Your task to perform on an android device: make emails show in primary in the gmail app Image 0: 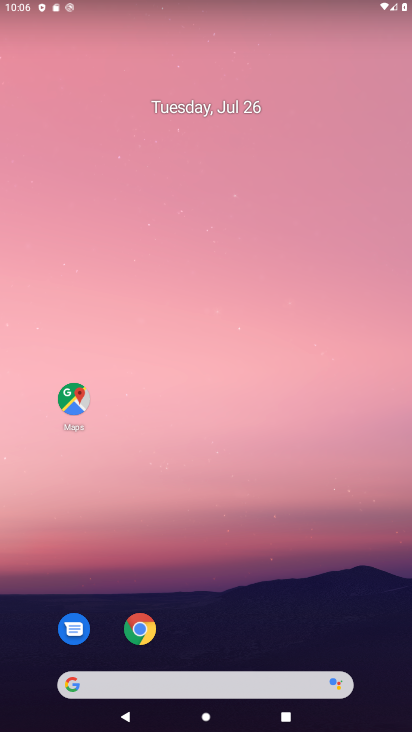
Step 0: drag from (333, 609) to (80, 81)
Your task to perform on an android device: make emails show in primary in the gmail app Image 1: 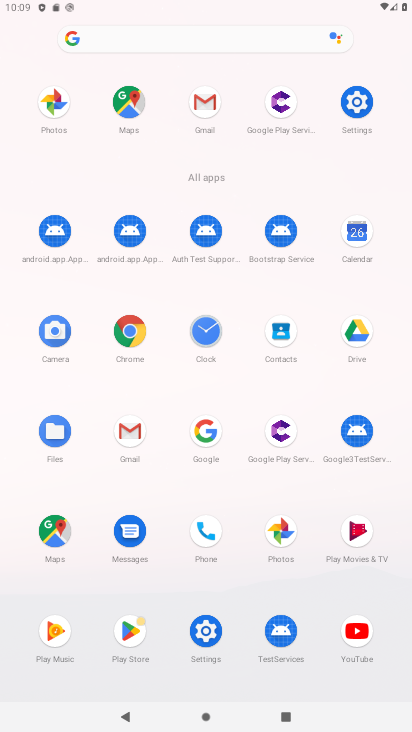
Step 1: click (129, 435)
Your task to perform on an android device: make emails show in primary in the gmail app Image 2: 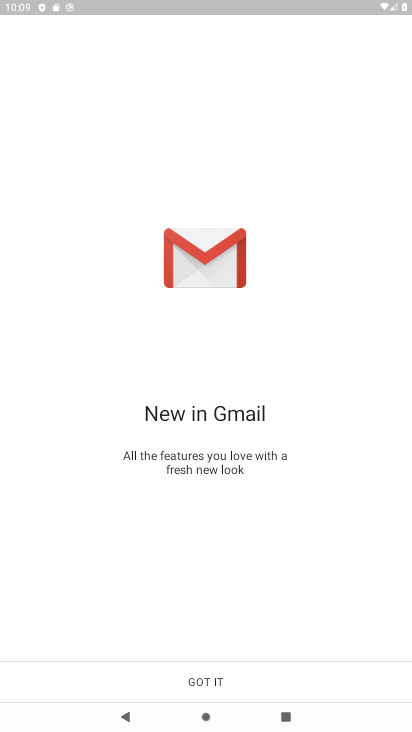
Step 2: click (220, 677)
Your task to perform on an android device: make emails show in primary in the gmail app Image 3: 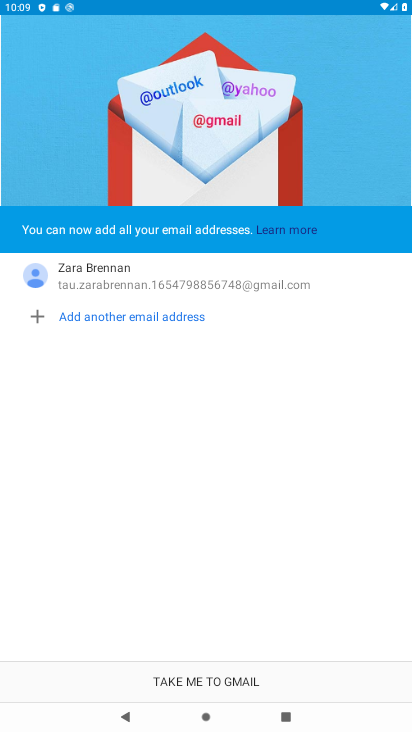
Step 3: click (197, 679)
Your task to perform on an android device: make emails show in primary in the gmail app Image 4: 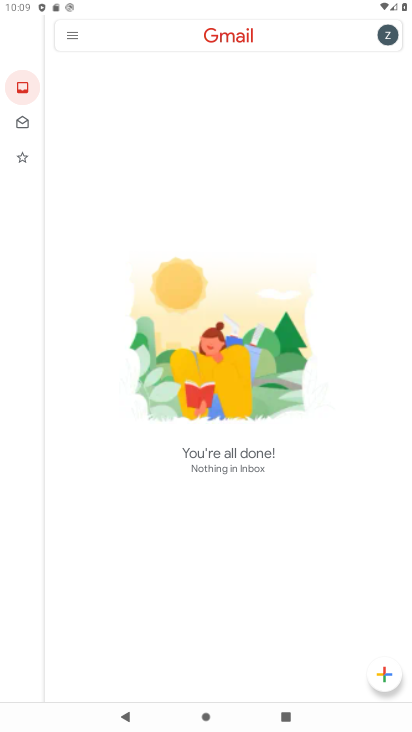
Step 4: task complete